Your task to perform on an android device: Open eBay Image 0: 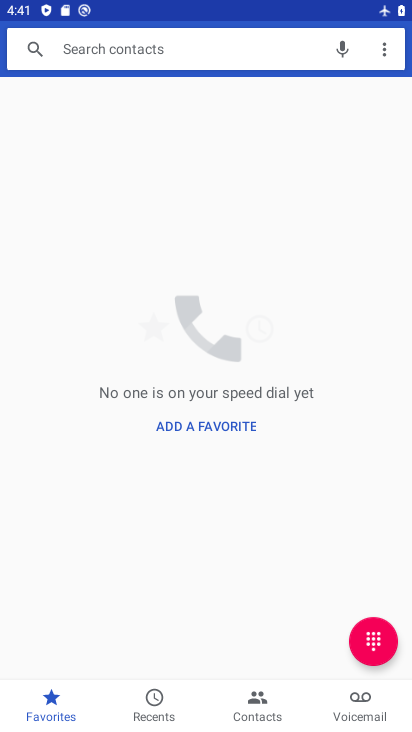
Step 0: press home button
Your task to perform on an android device: Open eBay Image 1: 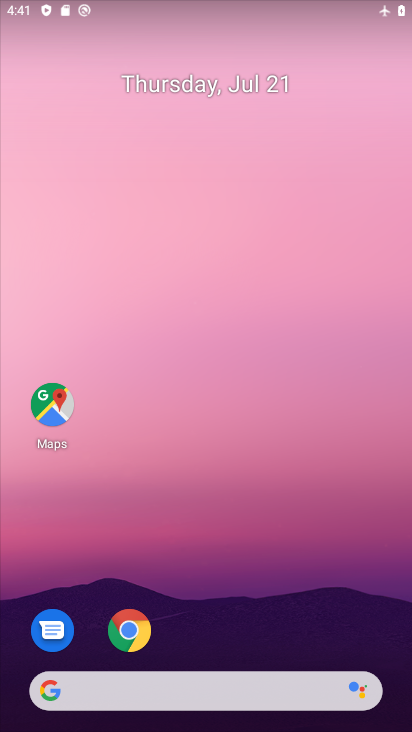
Step 1: click (130, 635)
Your task to perform on an android device: Open eBay Image 2: 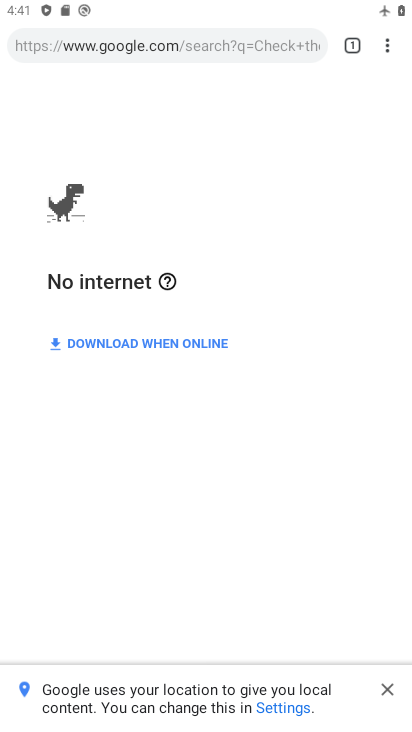
Step 2: click (351, 46)
Your task to perform on an android device: Open eBay Image 3: 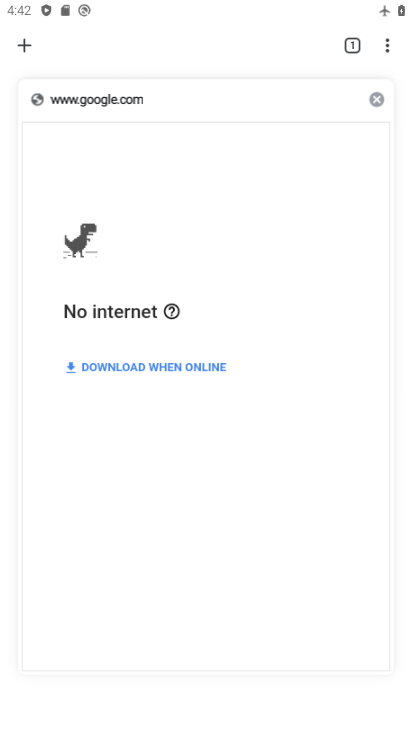
Step 3: click (21, 43)
Your task to perform on an android device: Open eBay Image 4: 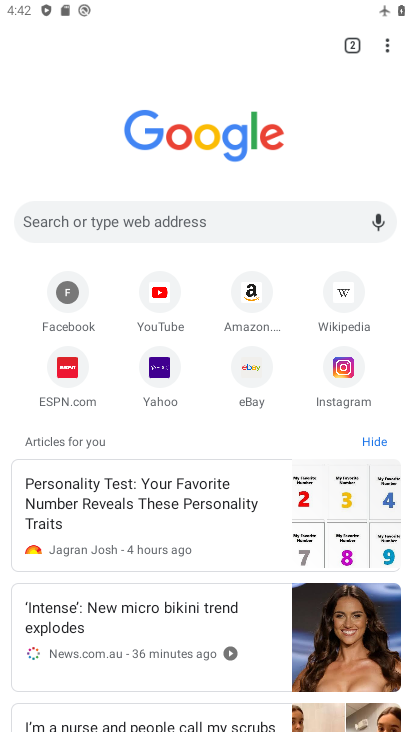
Step 4: click (248, 388)
Your task to perform on an android device: Open eBay Image 5: 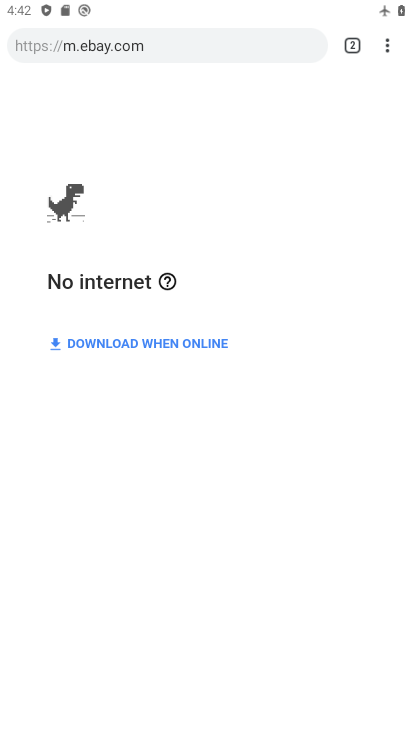
Step 5: task complete